Your task to perform on an android device: What is the news today? Image 0: 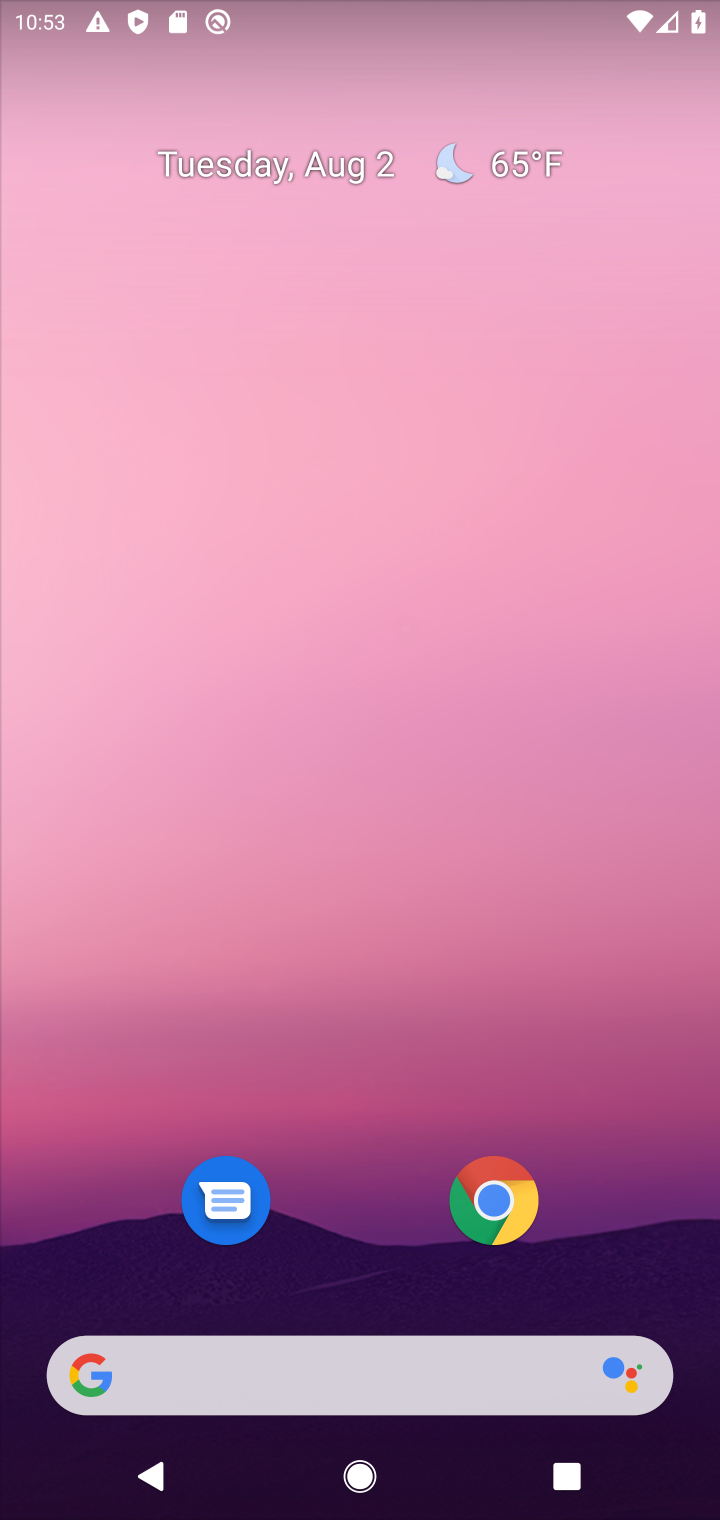
Step 0: drag from (643, 1267) to (560, 758)
Your task to perform on an android device: What is the news today? Image 1: 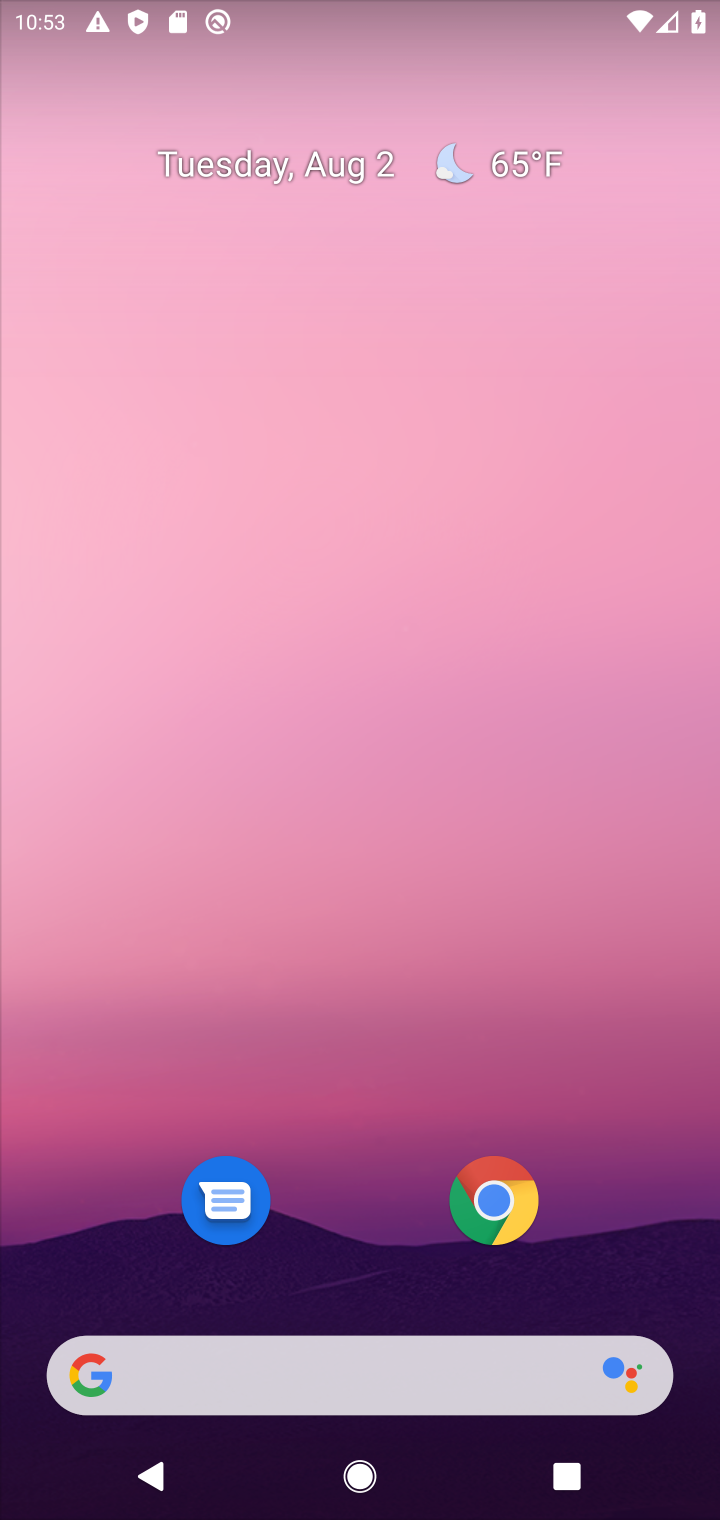
Step 1: click (13, 666)
Your task to perform on an android device: What is the news today? Image 2: 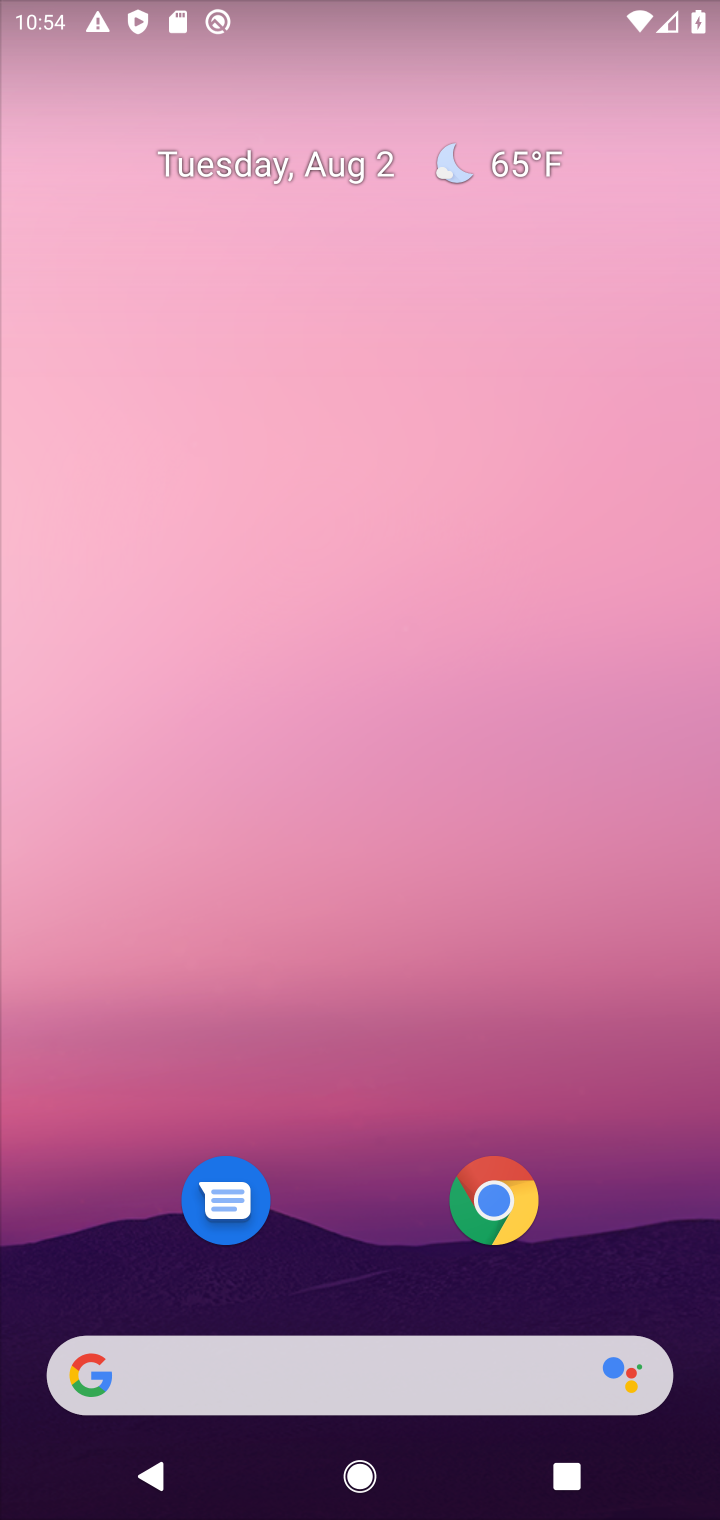
Step 2: task complete